Your task to perform on an android device: open app "Messenger Lite" (install if not already installed) Image 0: 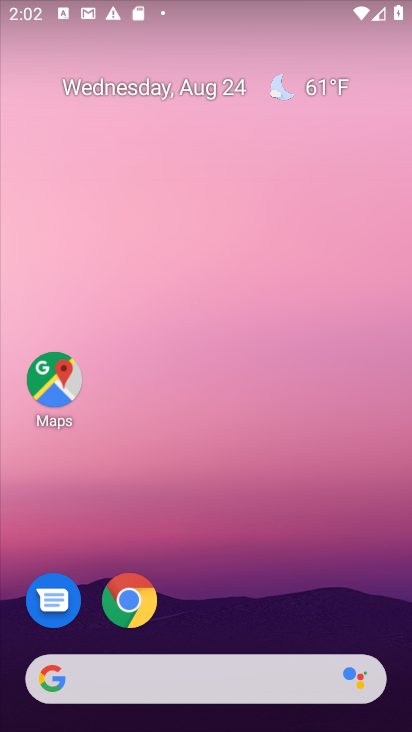
Step 0: drag from (258, 625) to (267, 103)
Your task to perform on an android device: open app "Messenger Lite" (install if not already installed) Image 1: 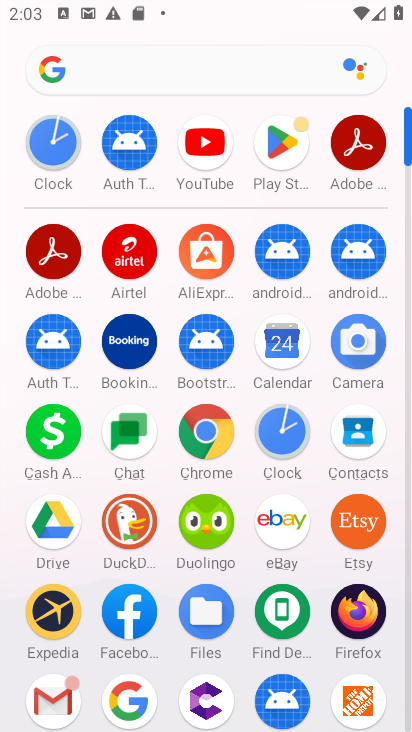
Step 1: click (272, 138)
Your task to perform on an android device: open app "Messenger Lite" (install if not already installed) Image 2: 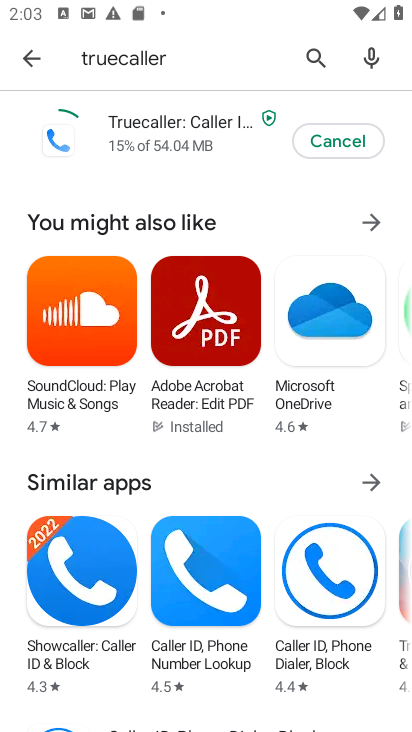
Step 2: click (302, 56)
Your task to perform on an android device: open app "Messenger Lite" (install if not already installed) Image 3: 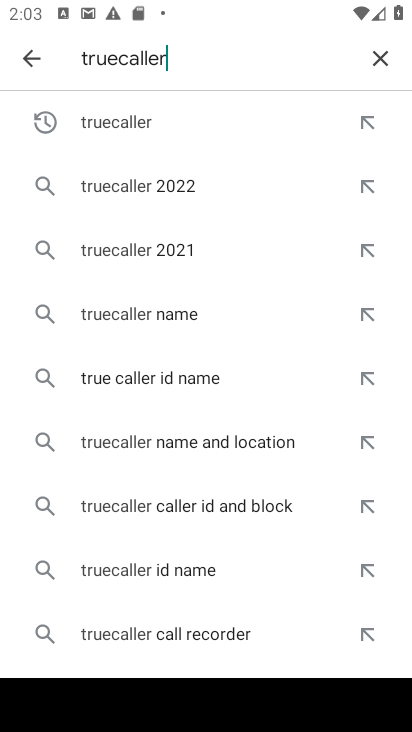
Step 3: click (384, 55)
Your task to perform on an android device: open app "Messenger Lite" (install if not already installed) Image 4: 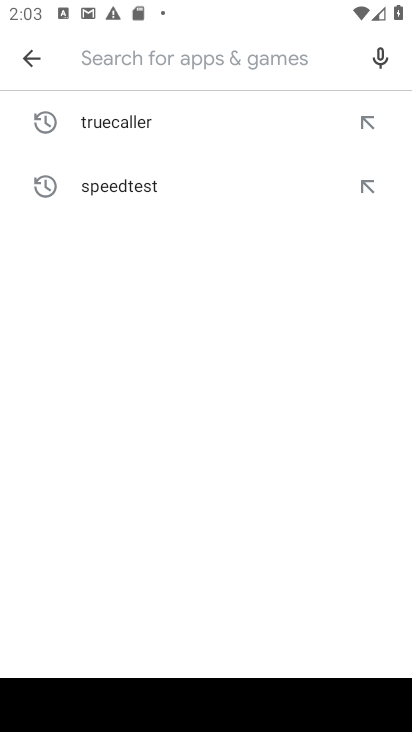
Step 4: type "messanger"
Your task to perform on an android device: open app "Messenger Lite" (install if not already installed) Image 5: 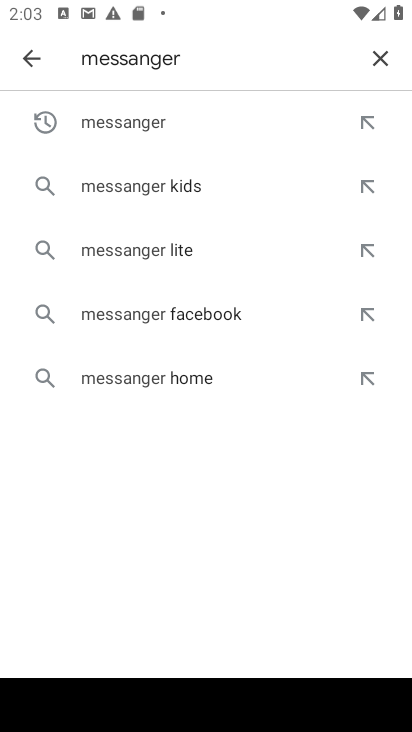
Step 5: click (160, 251)
Your task to perform on an android device: open app "Messenger Lite" (install if not already installed) Image 6: 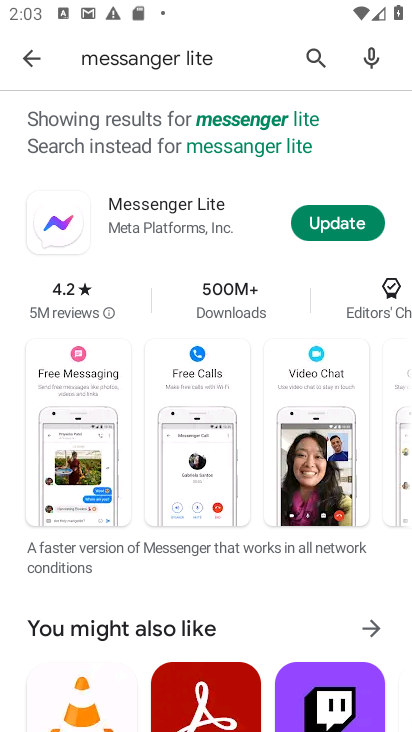
Step 6: click (352, 232)
Your task to perform on an android device: open app "Messenger Lite" (install if not already installed) Image 7: 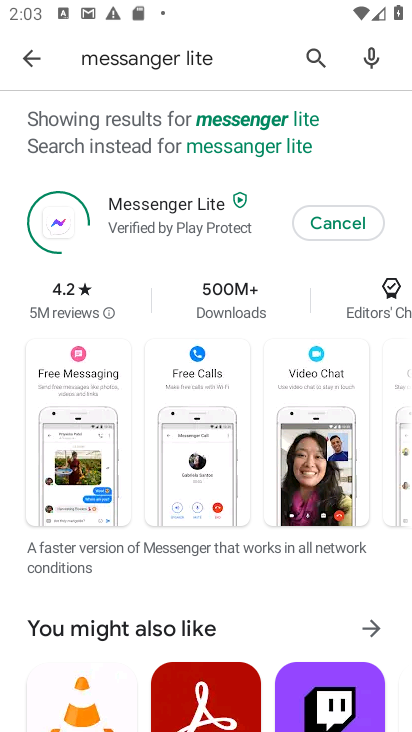
Step 7: task complete